Your task to perform on an android device: turn off location Image 0: 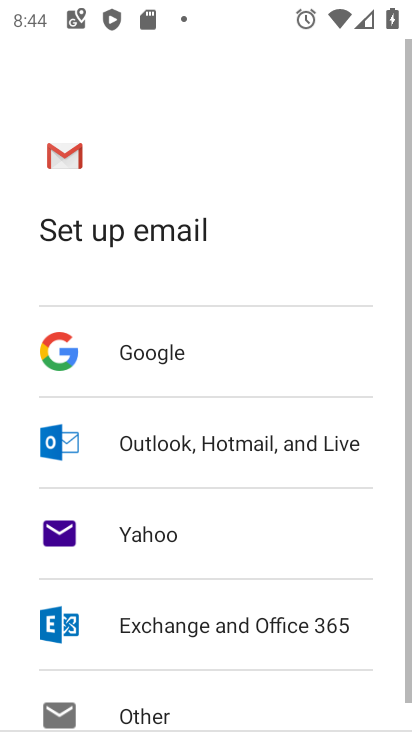
Step 0: press home button
Your task to perform on an android device: turn off location Image 1: 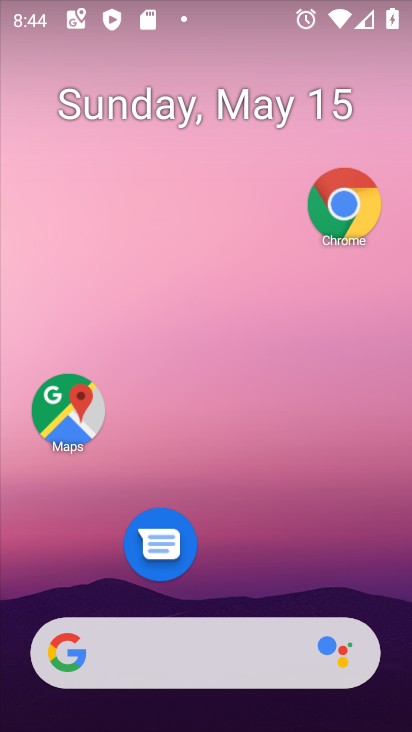
Step 1: drag from (229, 580) to (220, 35)
Your task to perform on an android device: turn off location Image 2: 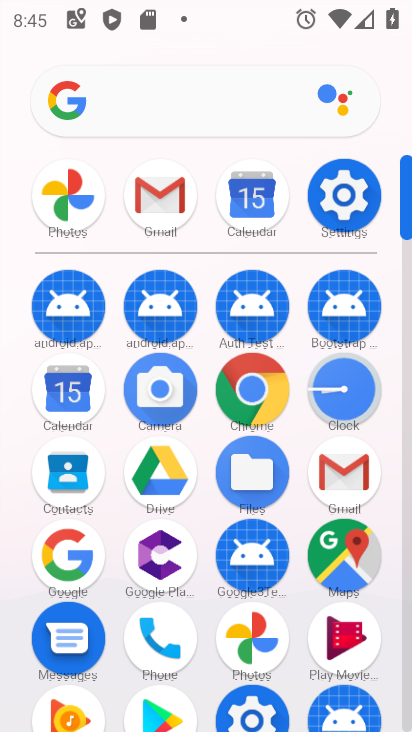
Step 2: click (343, 211)
Your task to perform on an android device: turn off location Image 3: 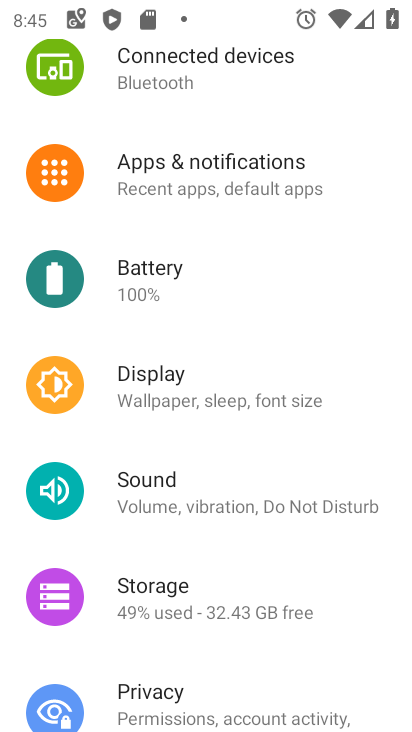
Step 3: drag from (177, 631) to (163, 195)
Your task to perform on an android device: turn off location Image 4: 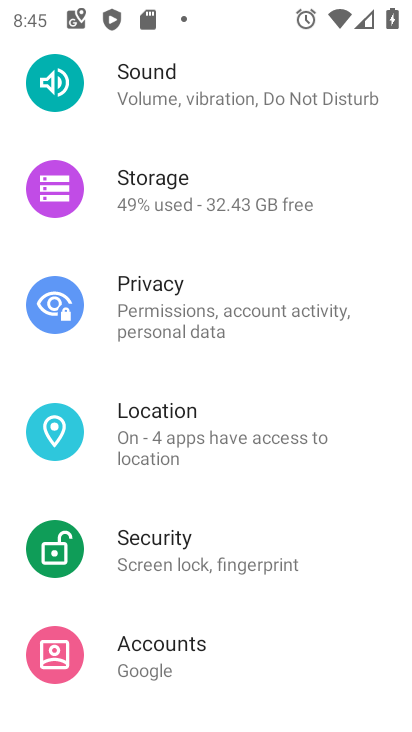
Step 4: click (207, 448)
Your task to perform on an android device: turn off location Image 5: 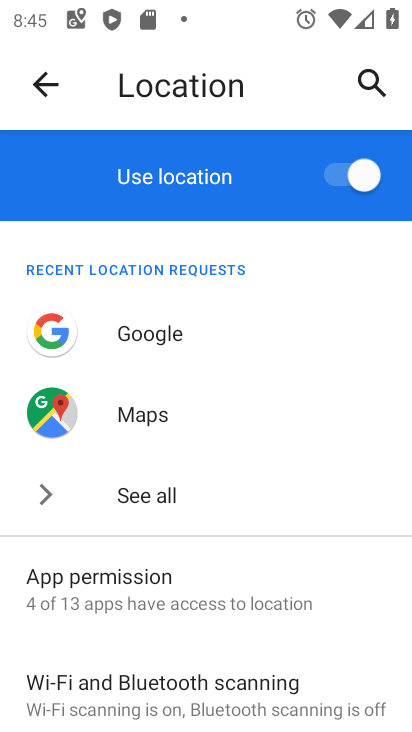
Step 5: click (324, 165)
Your task to perform on an android device: turn off location Image 6: 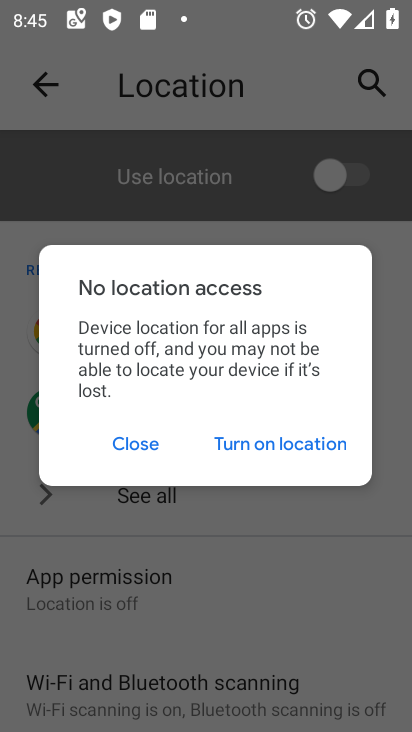
Step 6: task complete